Your task to perform on an android device: Open Google Maps Image 0: 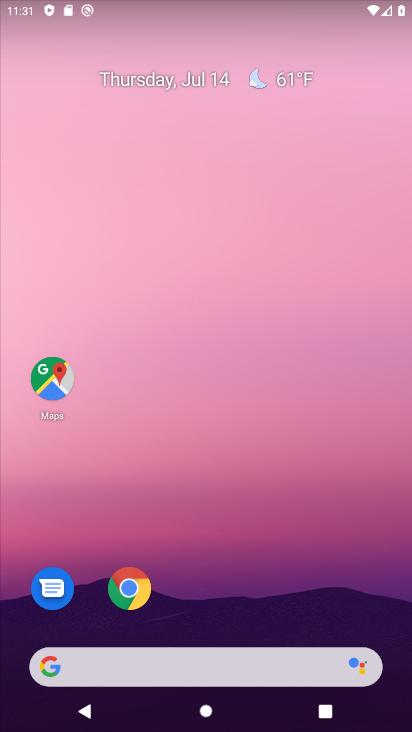
Step 0: drag from (197, 632) to (270, 146)
Your task to perform on an android device: Open Google Maps Image 1: 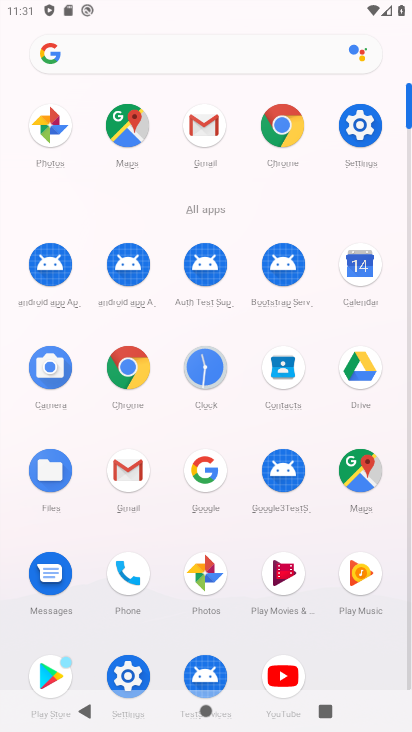
Step 1: click (361, 478)
Your task to perform on an android device: Open Google Maps Image 2: 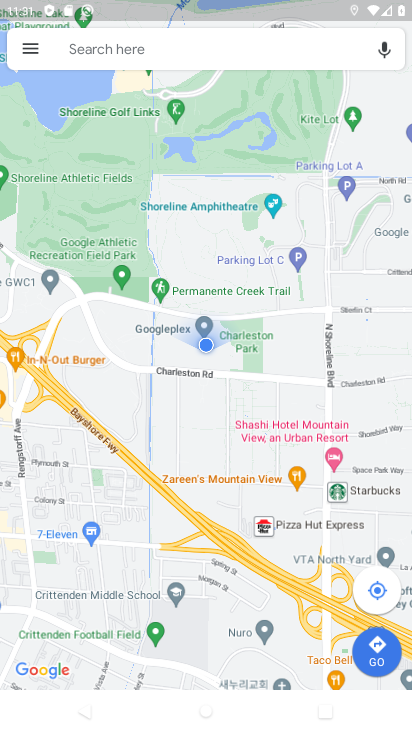
Step 2: task complete